Your task to perform on an android device: clear all cookies in the chrome app Image 0: 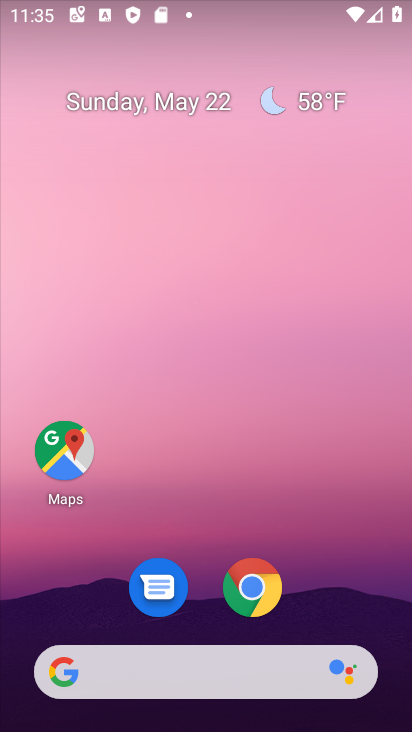
Step 0: click (263, 578)
Your task to perform on an android device: clear all cookies in the chrome app Image 1: 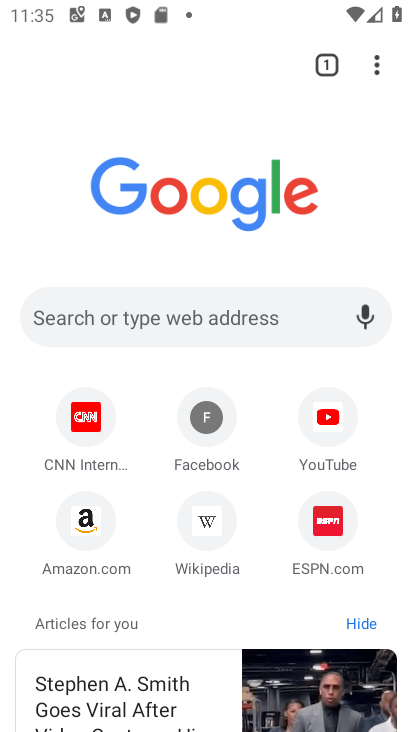
Step 1: click (378, 65)
Your task to perform on an android device: clear all cookies in the chrome app Image 2: 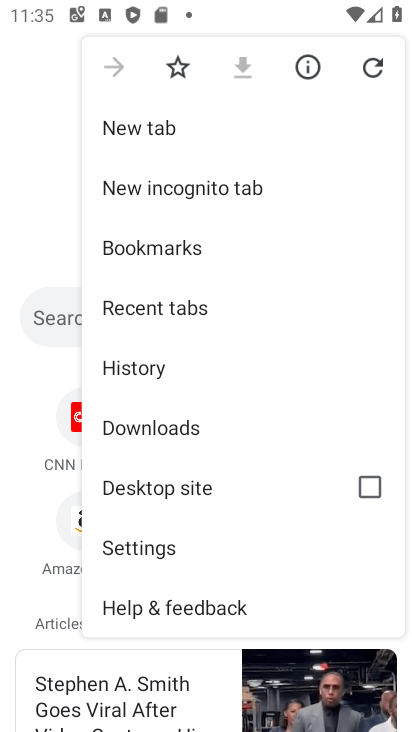
Step 2: click (183, 540)
Your task to perform on an android device: clear all cookies in the chrome app Image 3: 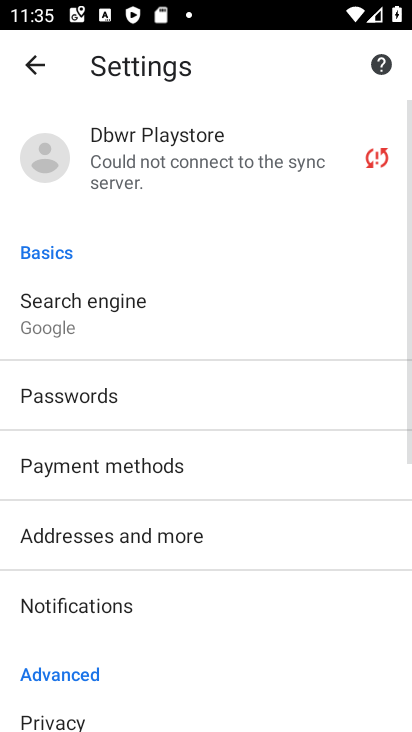
Step 3: drag from (251, 498) to (284, 212)
Your task to perform on an android device: clear all cookies in the chrome app Image 4: 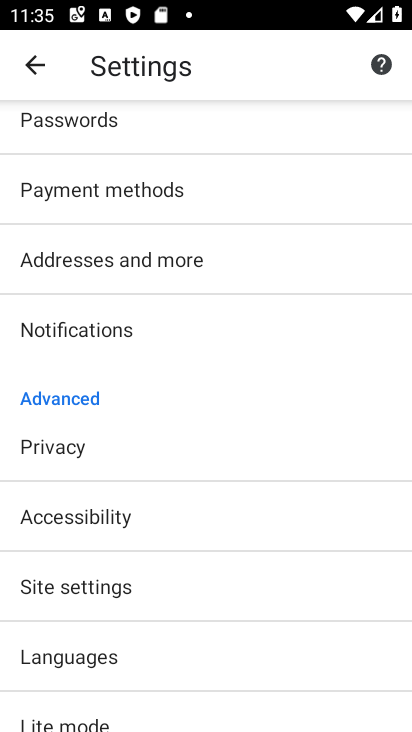
Step 4: click (107, 440)
Your task to perform on an android device: clear all cookies in the chrome app Image 5: 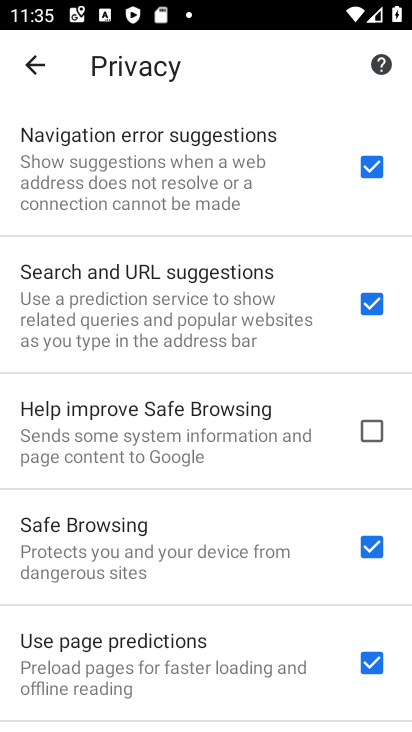
Step 5: drag from (184, 503) to (211, 108)
Your task to perform on an android device: clear all cookies in the chrome app Image 6: 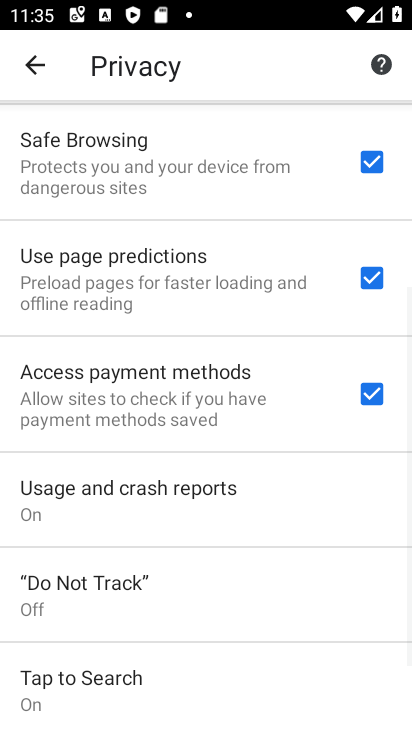
Step 6: drag from (237, 583) to (216, 261)
Your task to perform on an android device: clear all cookies in the chrome app Image 7: 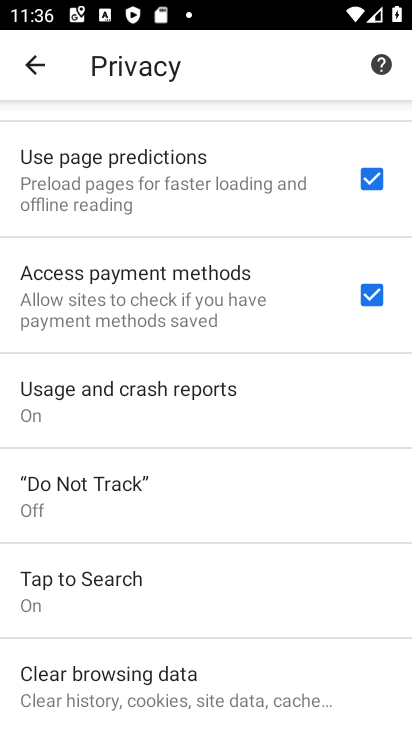
Step 7: click (209, 684)
Your task to perform on an android device: clear all cookies in the chrome app Image 8: 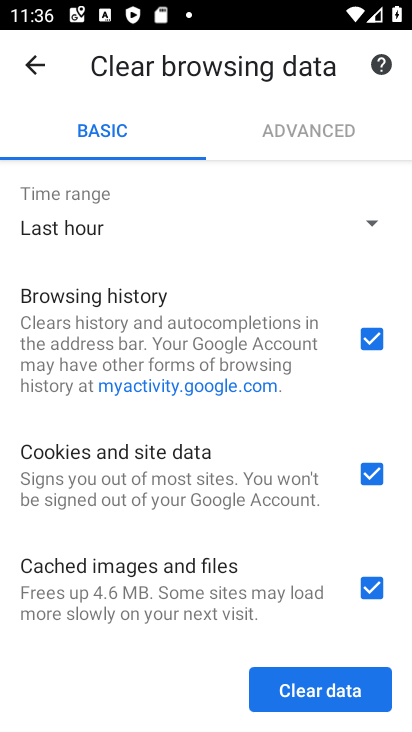
Step 8: click (368, 332)
Your task to perform on an android device: clear all cookies in the chrome app Image 9: 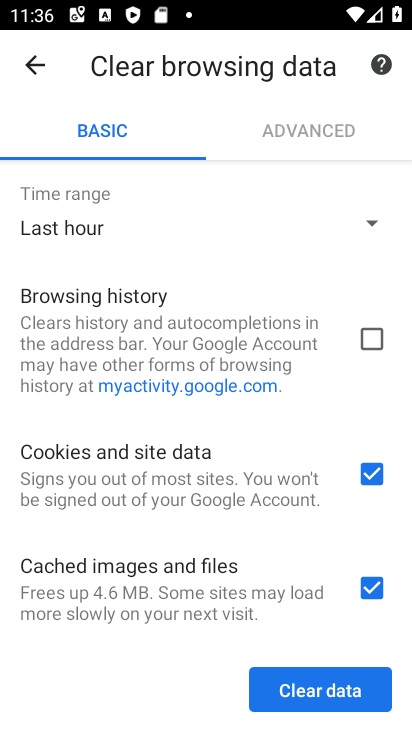
Step 9: click (368, 585)
Your task to perform on an android device: clear all cookies in the chrome app Image 10: 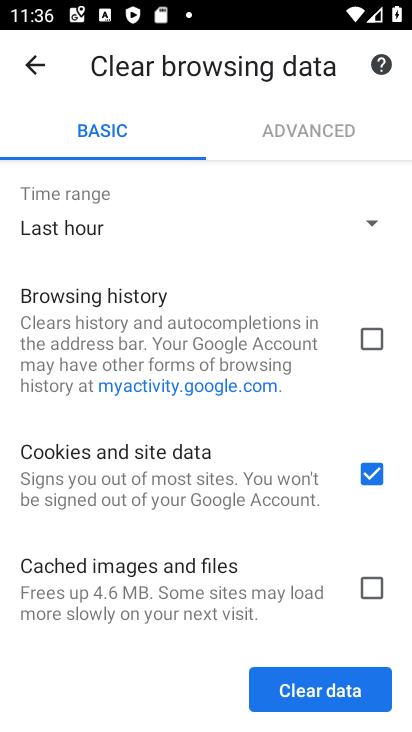
Step 10: click (326, 687)
Your task to perform on an android device: clear all cookies in the chrome app Image 11: 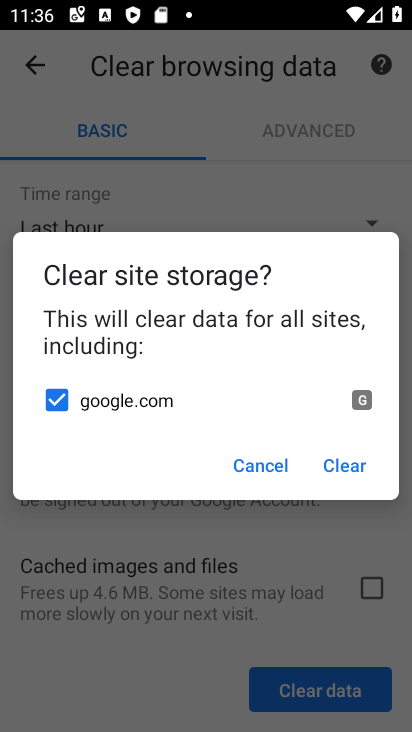
Step 11: click (353, 465)
Your task to perform on an android device: clear all cookies in the chrome app Image 12: 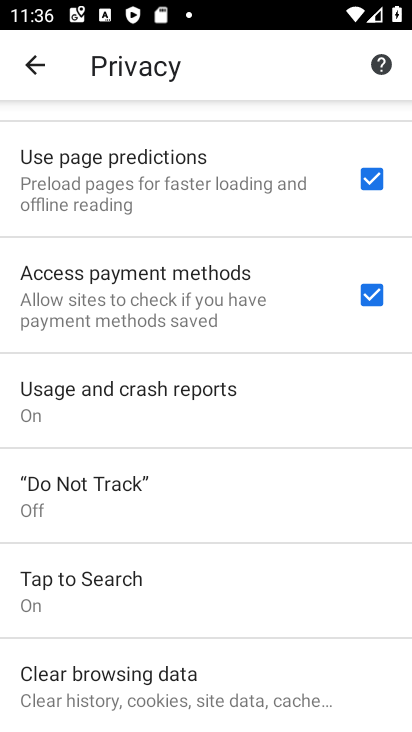
Step 12: task complete